Your task to perform on an android device: Open settings Image 0: 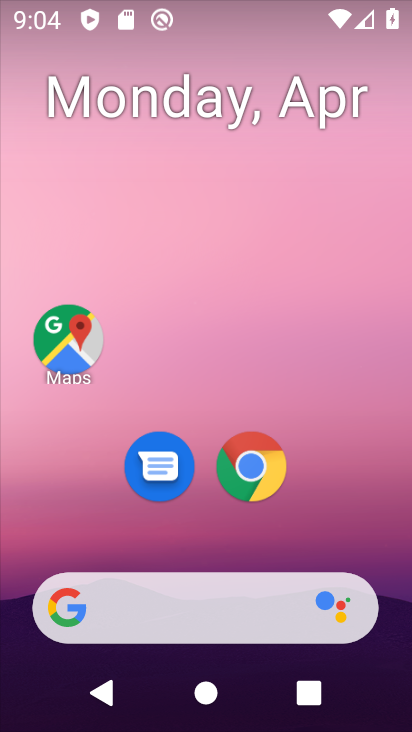
Step 0: drag from (210, 551) to (284, 70)
Your task to perform on an android device: Open settings Image 1: 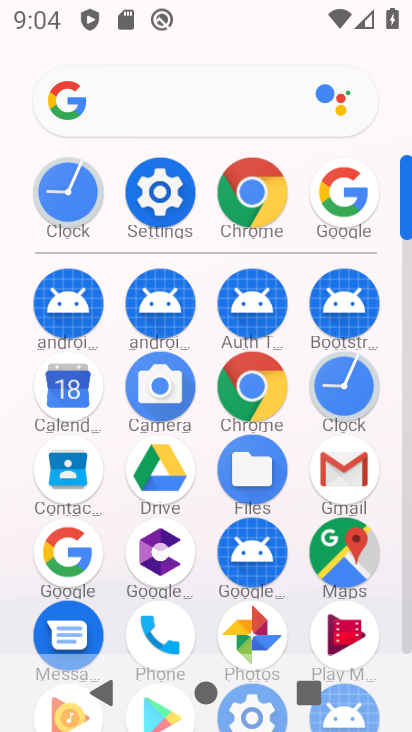
Step 1: click (171, 218)
Your task to perform on an android device: Open settings Image 2: 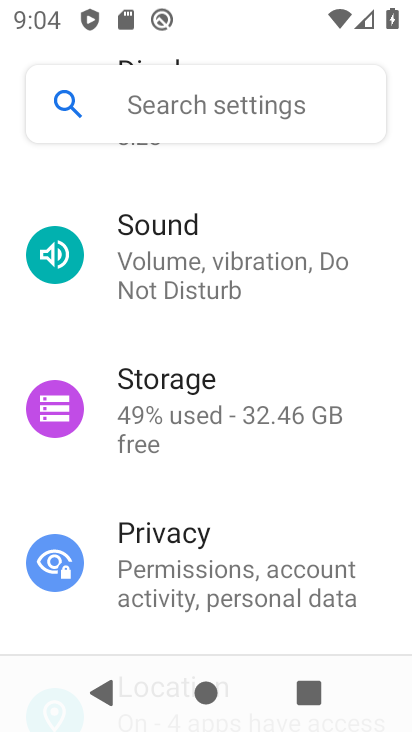
Step 2: task complete